Your task to perform on an android device: change timer sound Image 0: 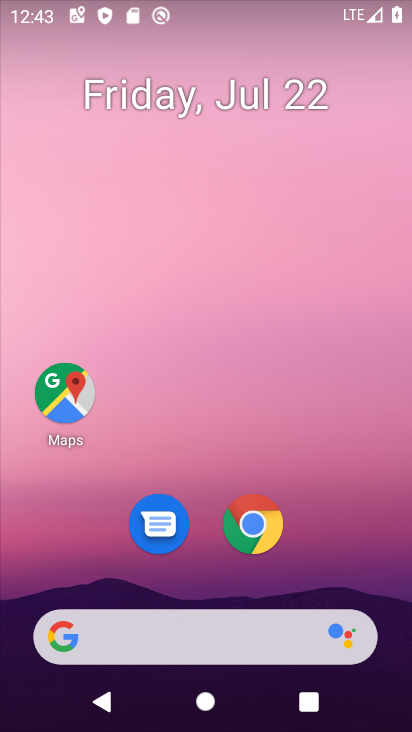
Step 0: drag from (340, 561) to (384, 18)
Your task to perform on an android device: change timer sound Image 1: 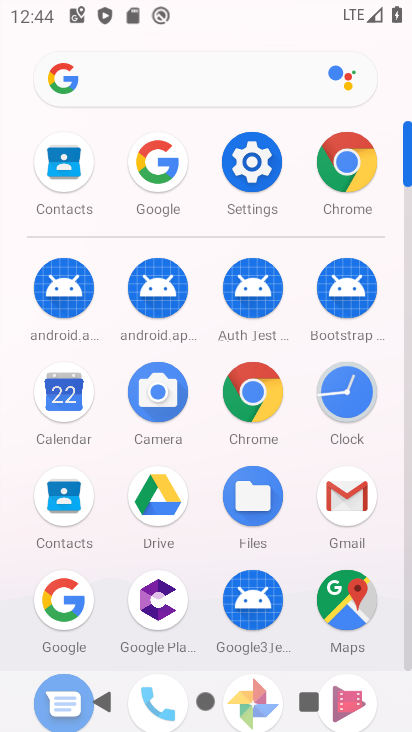
Step 1: click (340, 390)
Your task to perform on an android device: change timer sound Image 2: 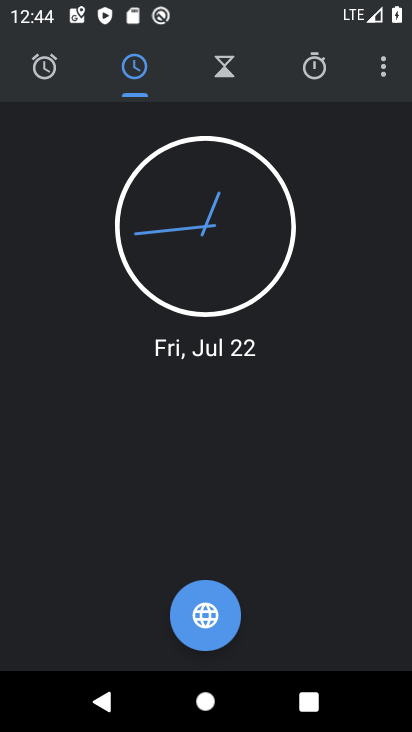
Step 2: click (385, 67)
Your task to perform on an android device: change timer sound Image 3: 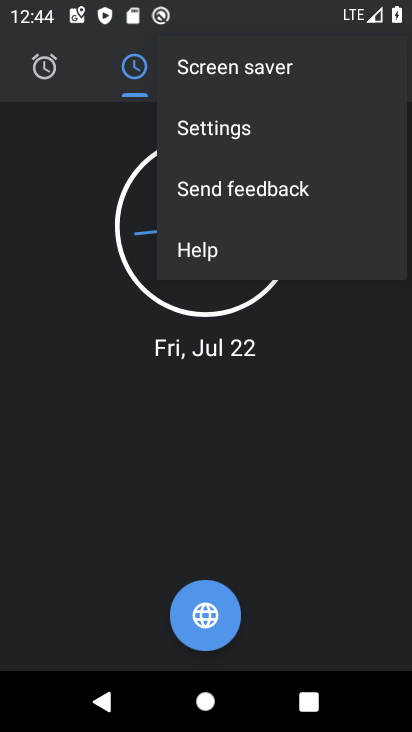
Step 3: click (246, 132)
Your task to perform on an android device: change timer sound Image 4: 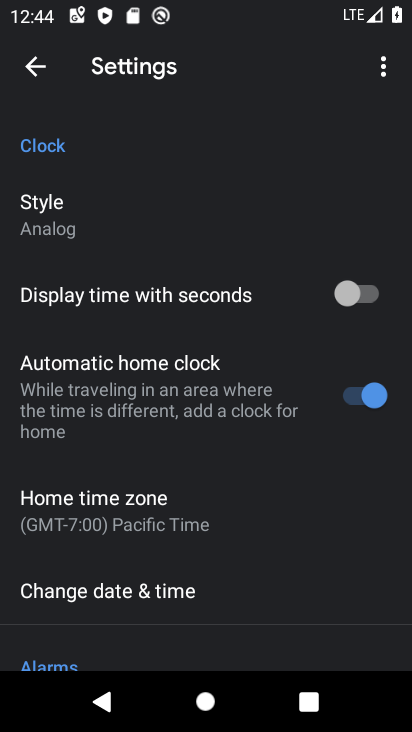
Step 4: drag from (164, 479) to (212, 89)
Your task to perform on an android device: change timer sound Image 5: 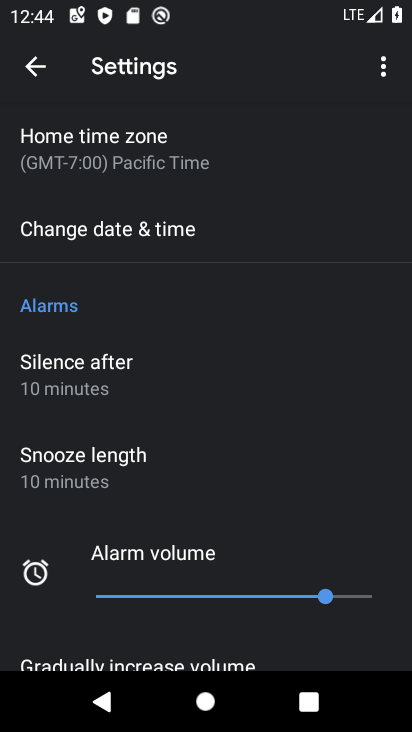
Step 5: drag from (188, 455) to (277, 92)
Your task to perform on an android device: change timer sound Image 6: 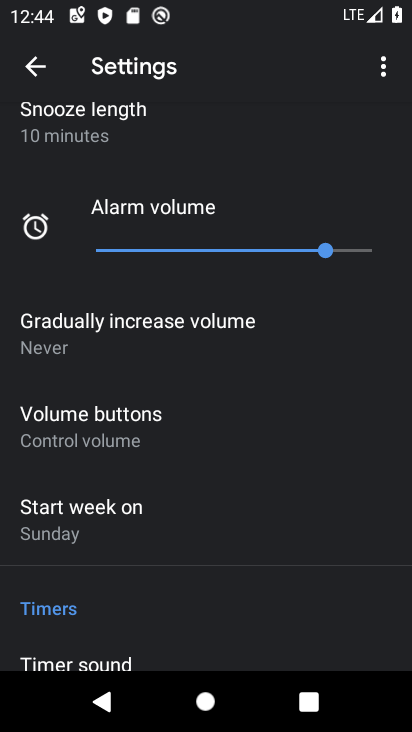
Step 6: drag from (205, 371) to (249, 126)
Your task to perform on an android device: change timer sound Image 7: 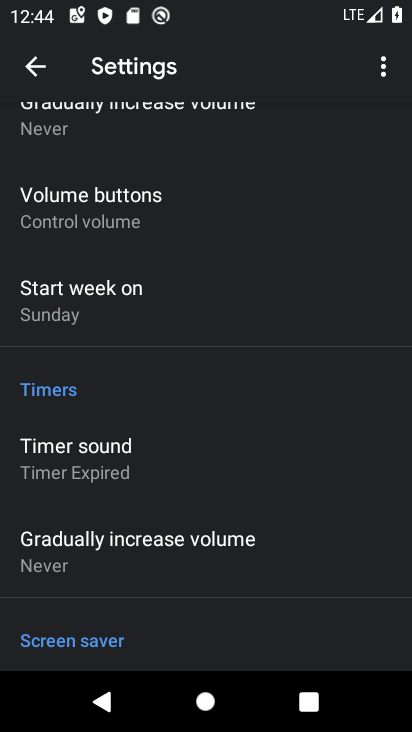
Step 7: click (98, 449)
Your task to perform on an android device: change timer sound Image 8: 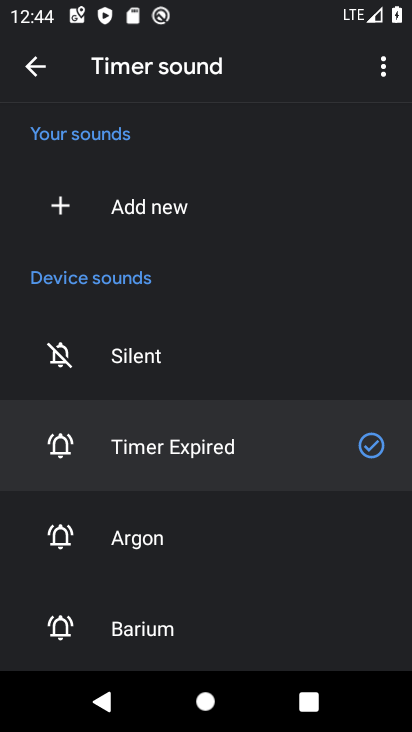
Step 8: click (117, 534)
Your task to perform on an android device: change timer sound Image 9: 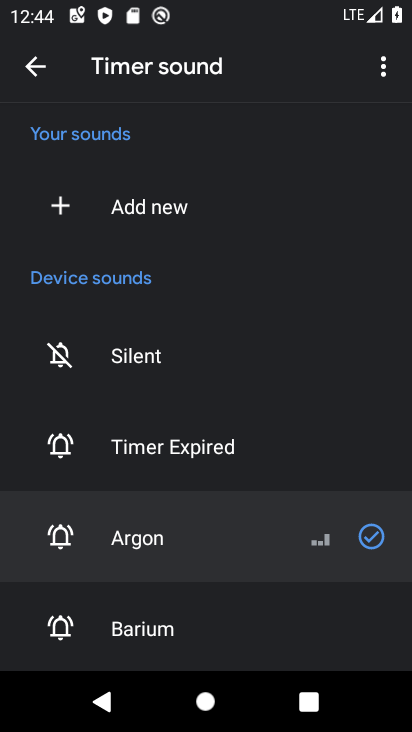
Step 9: task complete